Your task to perform on an android device: turn off translation in the chrome app Image 0: 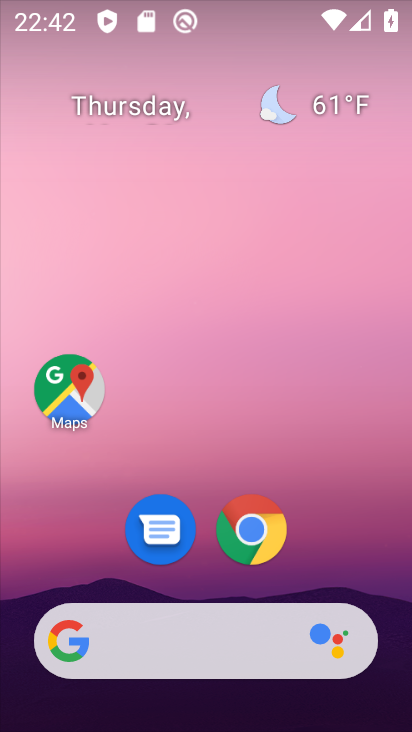
Step 0: drag from (361, 188) to (319, 215)
Your task to perform on an android device: turn off translation in the chrome app Image 1: 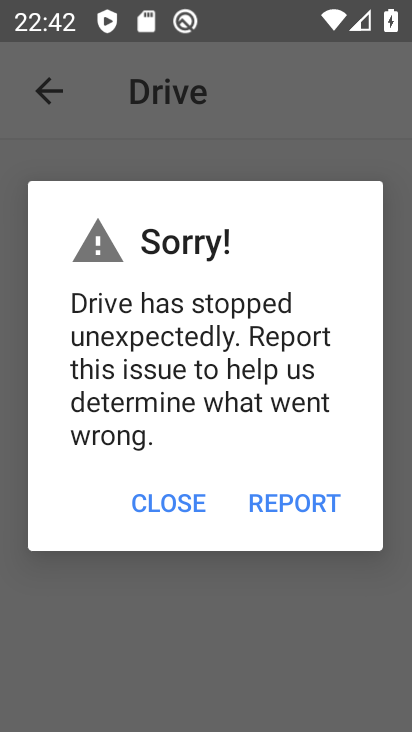
Step 1: press home button
Your task to perform on an android device: turn off translation in the chrome app Image 2: 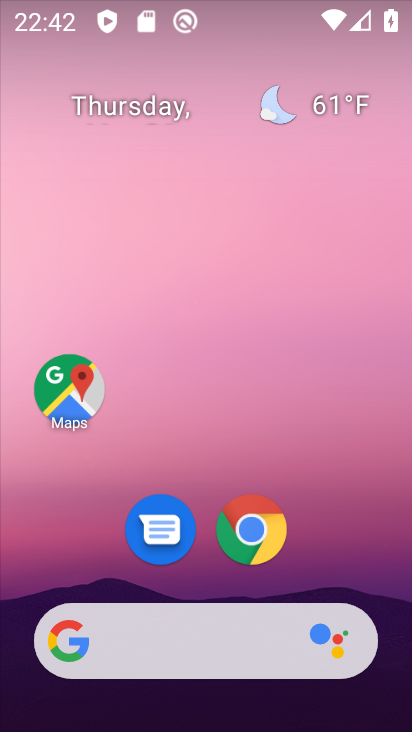
Step 2: click (272, 533)
Your task to perform on an android device: turn off translation in the chrome app Image 3: 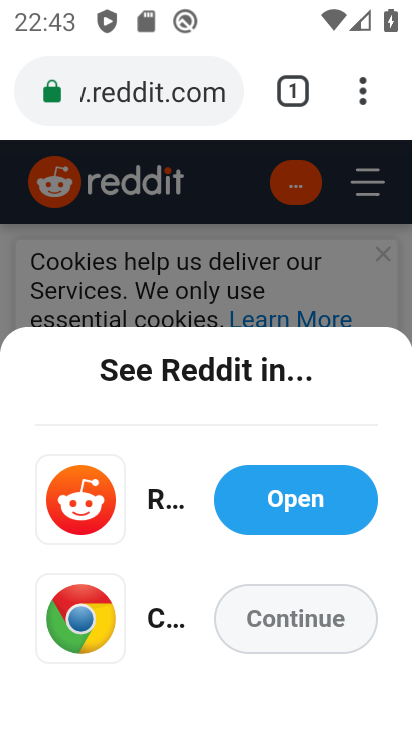
Step 3: click (374, 81)
Your task to perform on an android device: turn off translation in the chrome app Image 4: 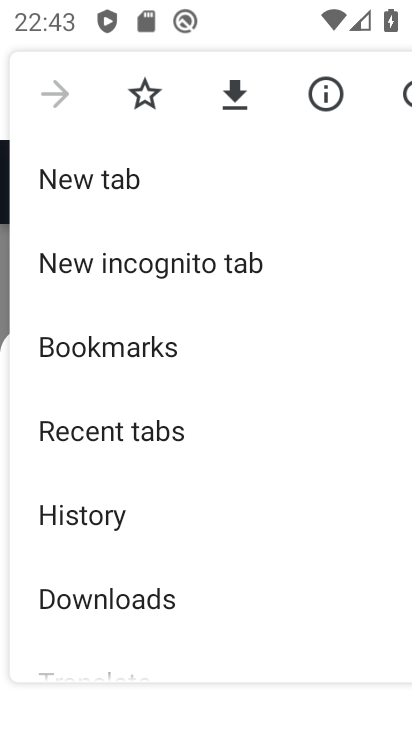
Step 4: drag from (141, 563) to (135, 366)
Your task to perform on an android device: turn off translation in the chrome app Image 5: 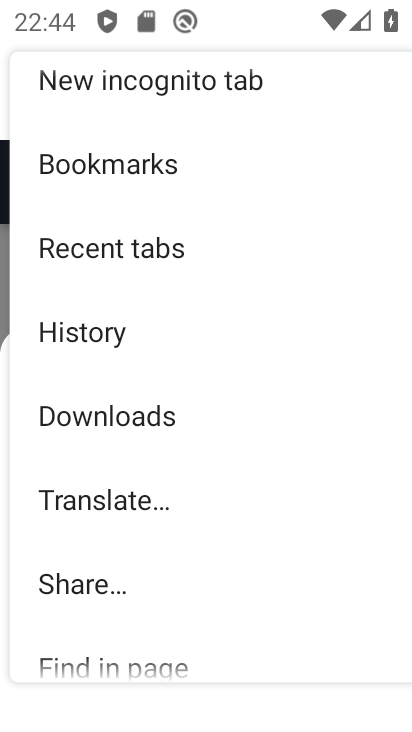
Step 5: drag from (112, 599) to (190, 151)
Your task to perform on an android device: turn off translation in the chrome app Image 6: 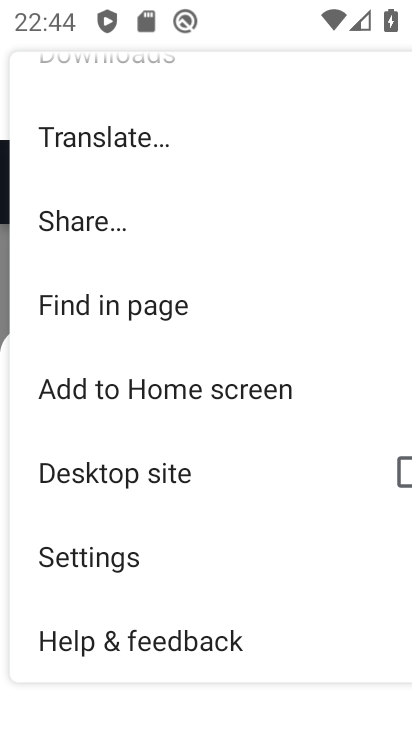
Step 6: click (127, 541)
Your task to perform on an android device: turn off translation in the chrome app Image 7: 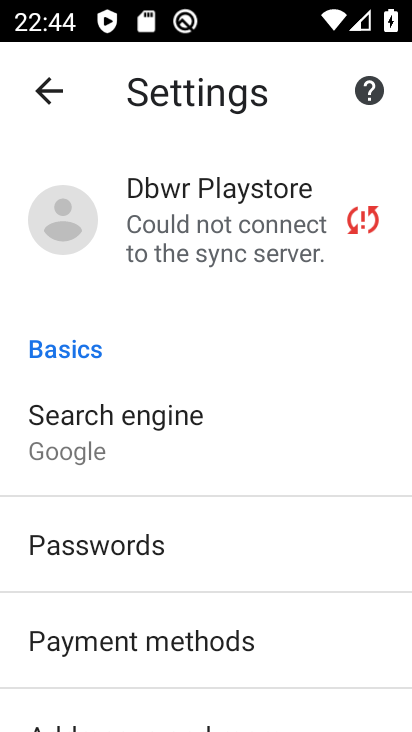
Step 7: drag from (219, 522) to (188, 97)
Your task to perform on an android device: turn off translation in the chrome app Image 8: 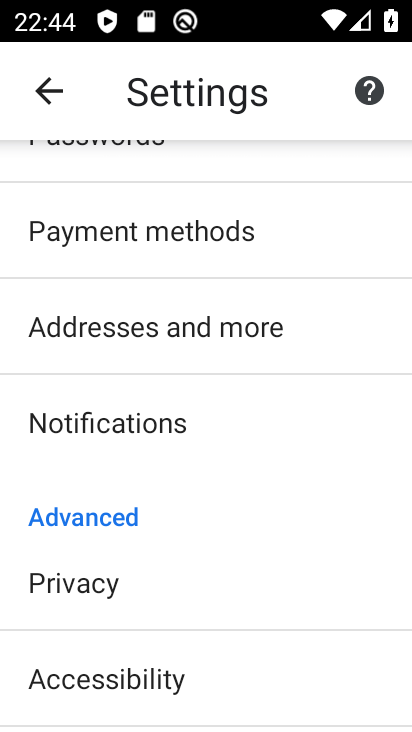
Step 8: drag from (135, 637) to (144, 258)
Your task to perform on an android device: turn off translation in the chrome app Image 9: 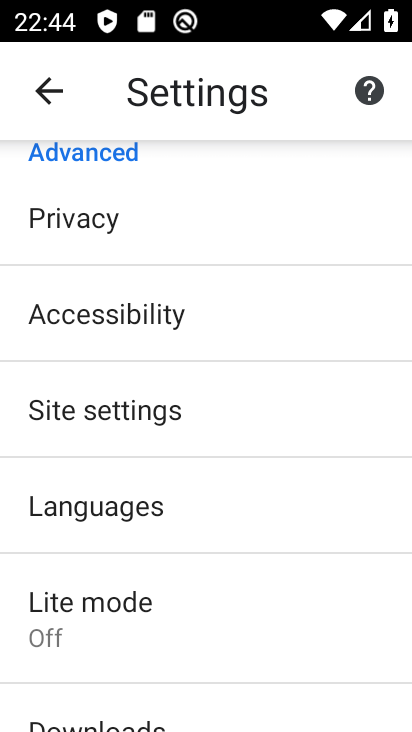
Step 9: click (173, 544)
Your task to perform on an android device: turn off translation in the chrome app Image 10: 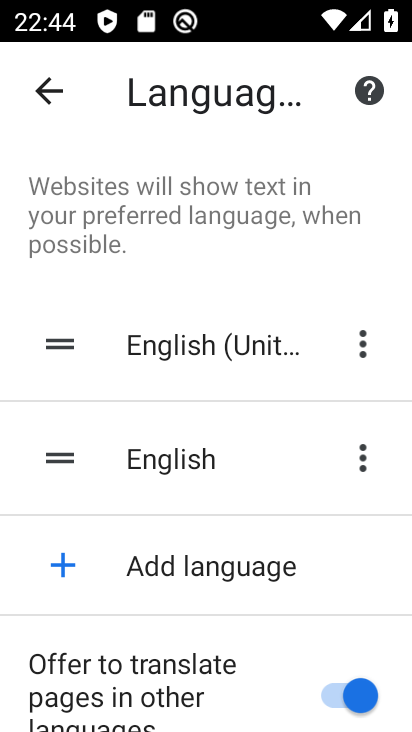
Step 10: click (321, 673)
Your task to perform on an android device: turn off translation in the chrome app Image 11: 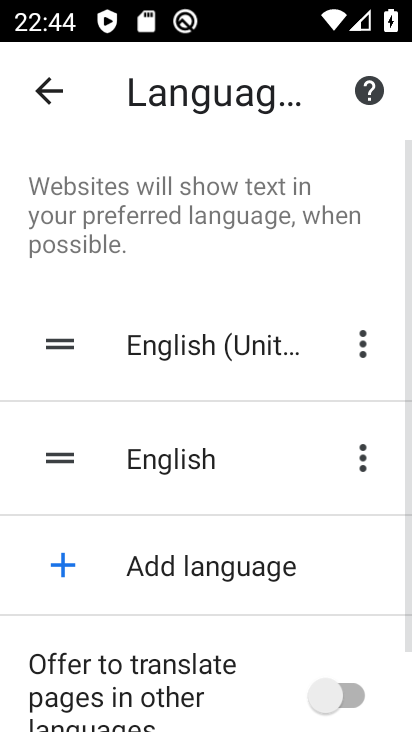
Step 11: task complete